Your task to perform on an android device: Open Youtube and go to the subscriptions tab Image 0: 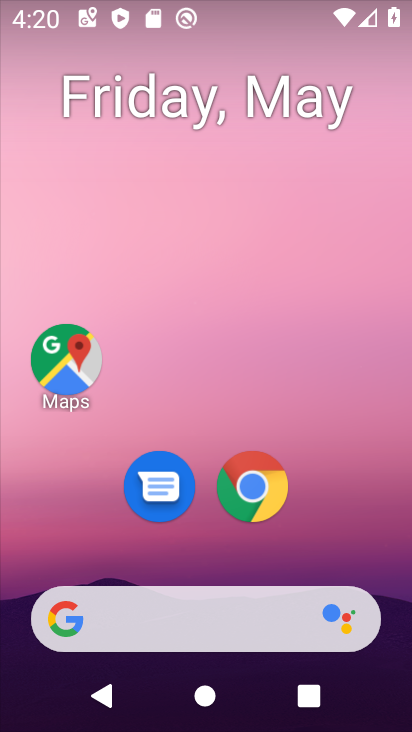
Step 0: drag from (356, 503) to (251, 2)
Your task to perform on an android device: Open Youtube and go to the subscriptions tab Image 1: 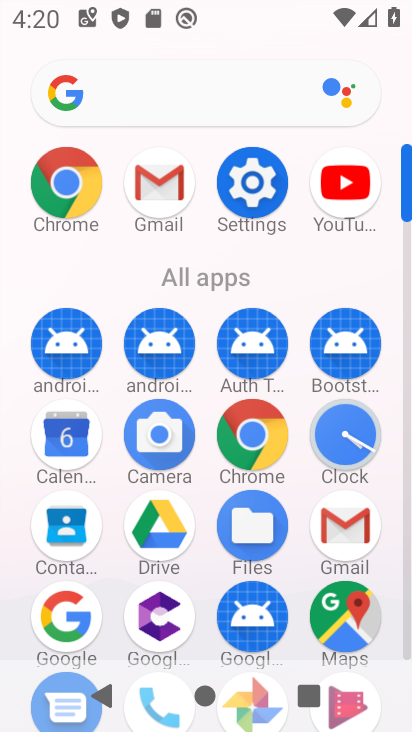
Step 1: drag from (11, 595) to (4, 203)
Your task to perform on an android device: Open Youtube and go to the subscriptions tab Image 2: 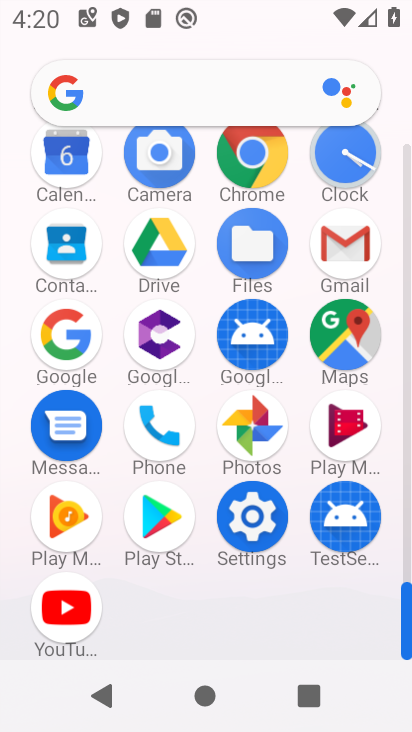
Step 2: click (61, 603)
Your task to perform on an android device: Open Youtube and go to the subscriptions tab Image 3: 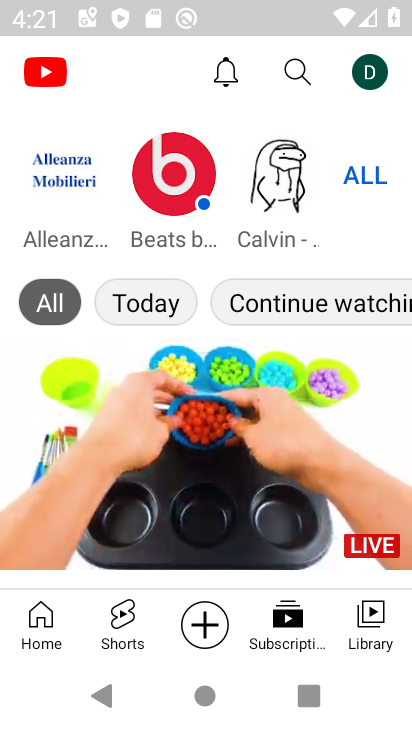
Step 3: task complete